Your task to perform on an android device: What's the weather going to be this weekend? Image 0: 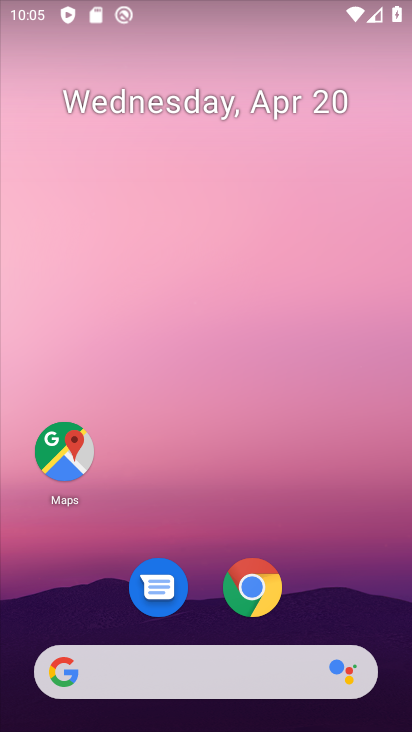
Step 0: click (246, 114)
Your task to perform on an android device: What's the weather going to be this weekend? Image 1: 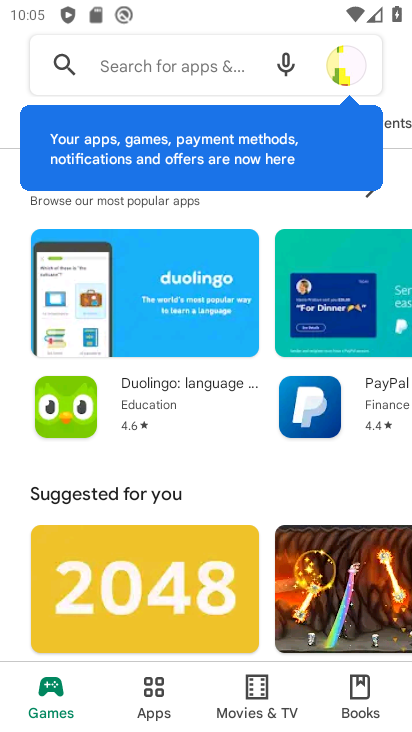
Step 1: press home button
Your task to perform on an android device: What's the weather going to be this weekend? Image 2: 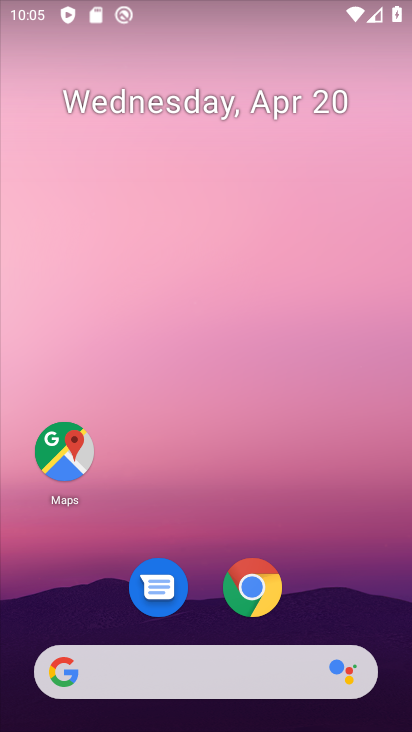
Step 2: drag from (207, 546) to (191, 189)
Your task to perform on an android device: What's the weather going to be this weekend? Image 3: 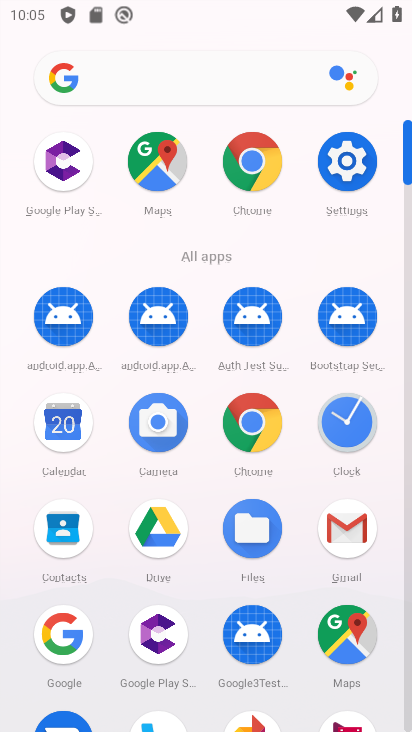
Step 3: click (84, 650)
Your task to perform on an android device: What's the weather going to be this weekend? Image 4: 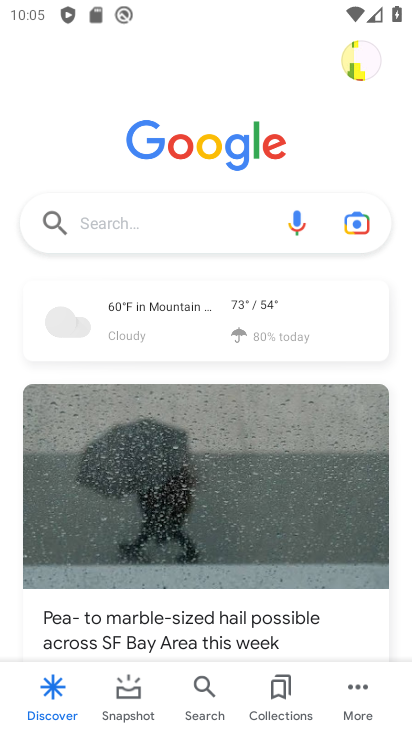
Step 4: click (165, 315)
Your task to perform on an android device: What's the weather going to be this weekend? Image 5: 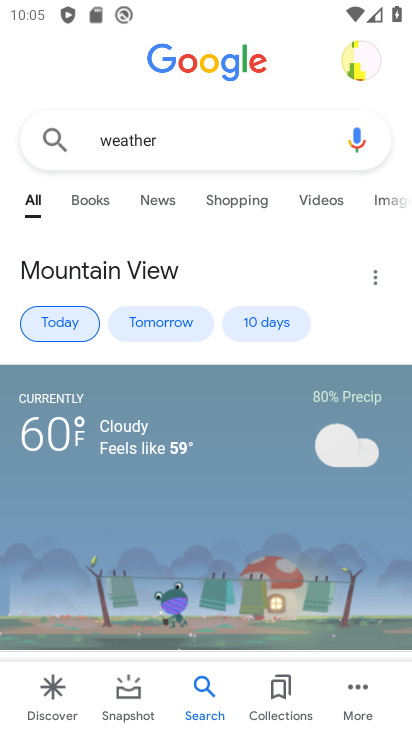
Step 5: task complete